Your task to perform on an android device: Add "usb-a" to the cart on walmart Image 0: 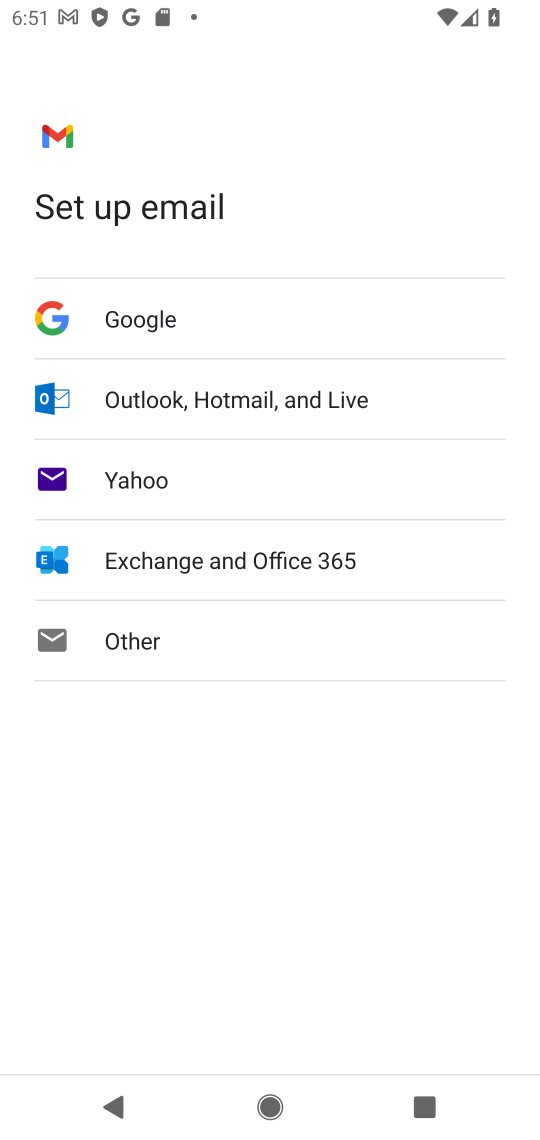
Step 0: press home button
Your task to perform on an android device: Add "usb-a" to the cart on walmart Image 1: 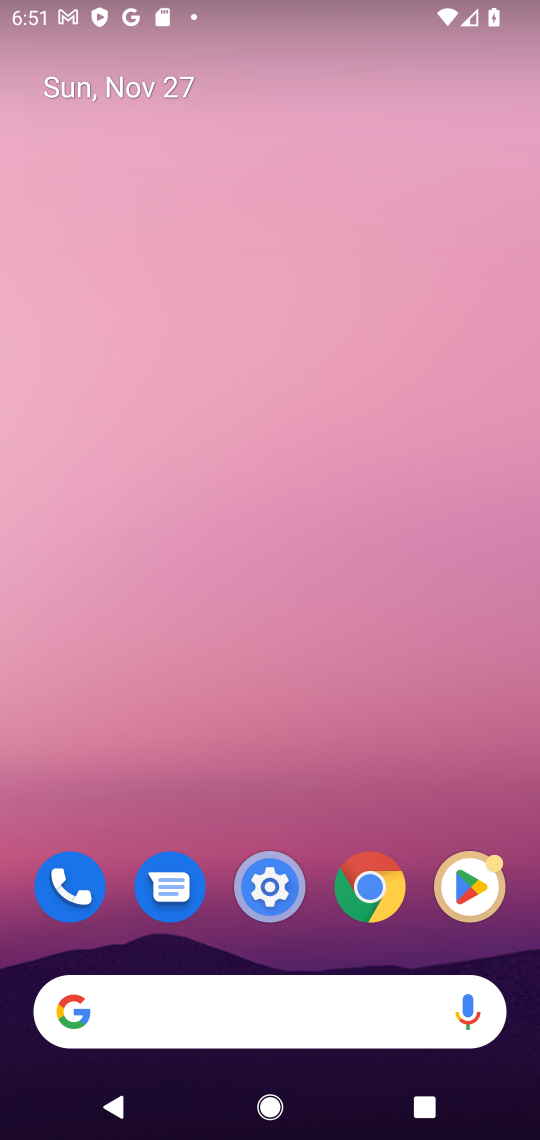
Step 1: click (335, 1021)
Your task to perform on an android device: Add "usb-a" to the cart on walmart Image 2: 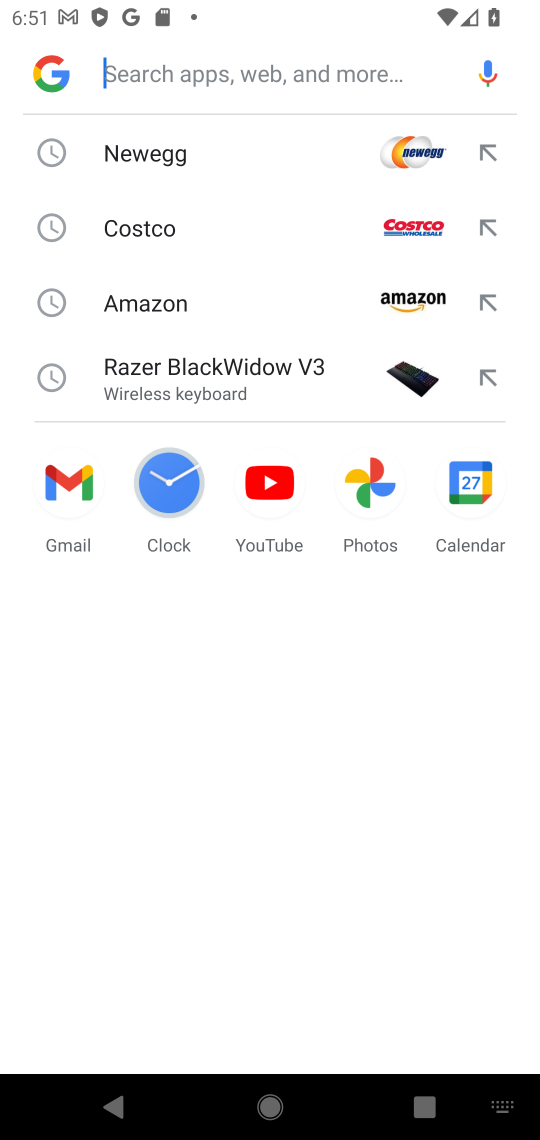
Step 2: type "walmart"
Your task to perform on an android device: Add "usb-a" to the cart on walmart Image 3: 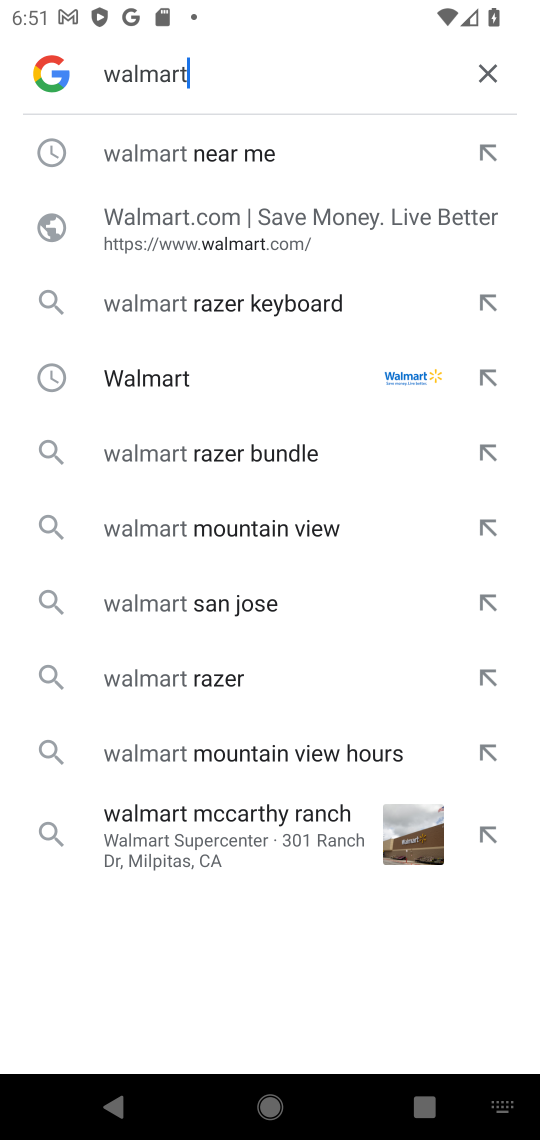
Step 3: click (212, 220)
Your task to perform on an android device: Add "usb-a" to the cart on walmart Image 4: 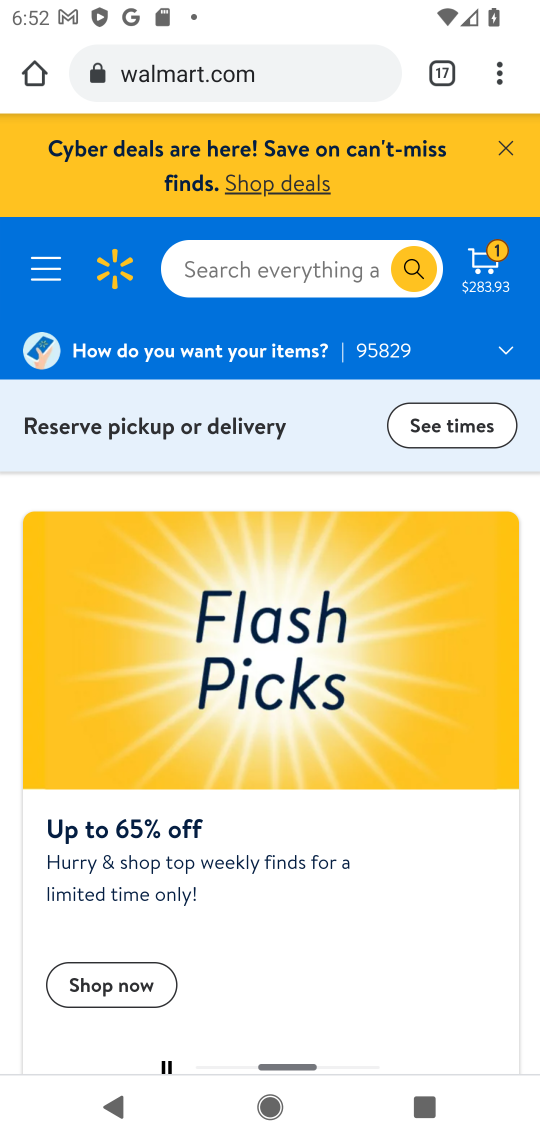
Step 4: click (267, 258)
Your task to perform on an android device: Add "usb-a" to the cart on walmart Image 5: 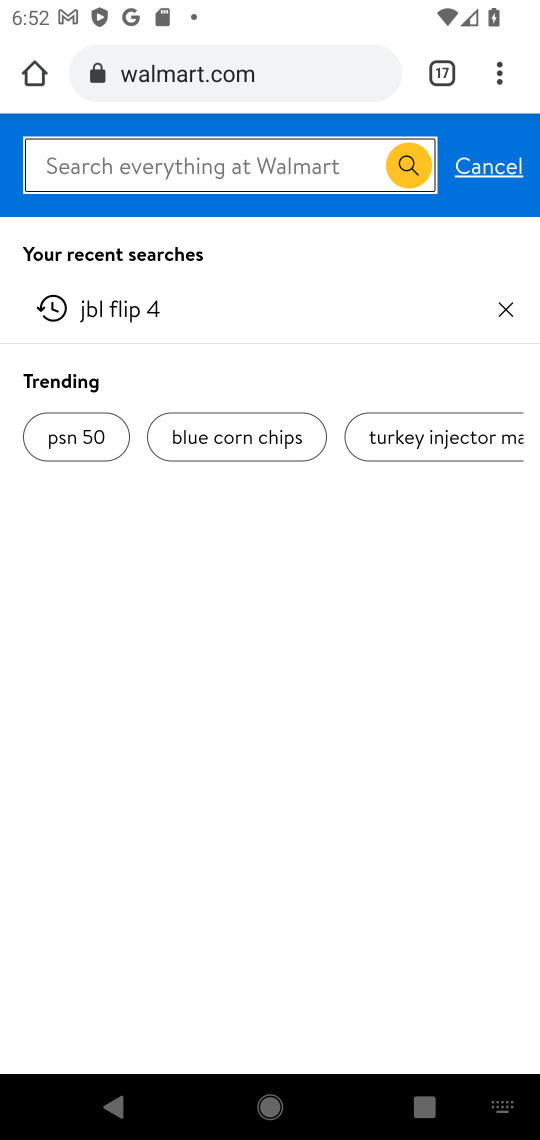
Step 5: type "usb-a"
Your task to perform on an android device: Add "usb-a" to the cart on walmart Image 6: 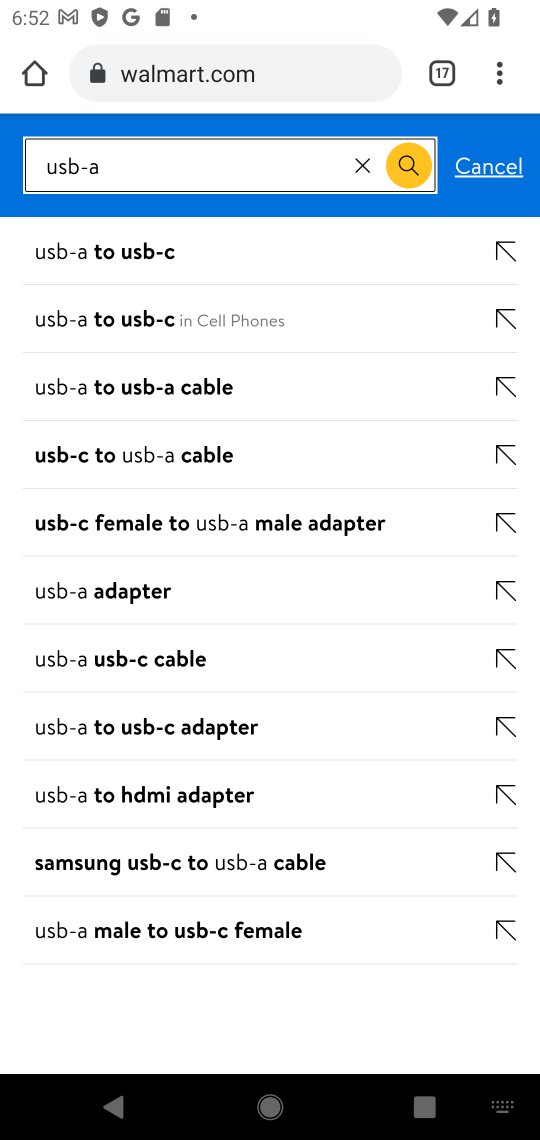
Step 6: click (163, 607)
Your task to perform on an android device: Add "usb-a" to the cart on walmart Image 7: 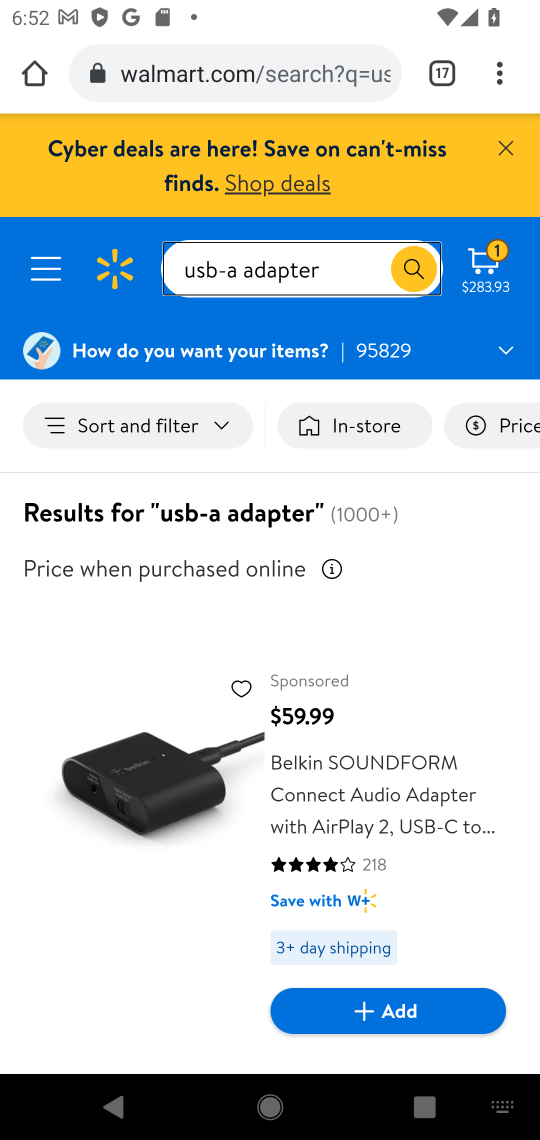
Step 7: click (349, 1014)
Your task to perform on an android device: Add "usb-a" to the cart on walmart Image 8: 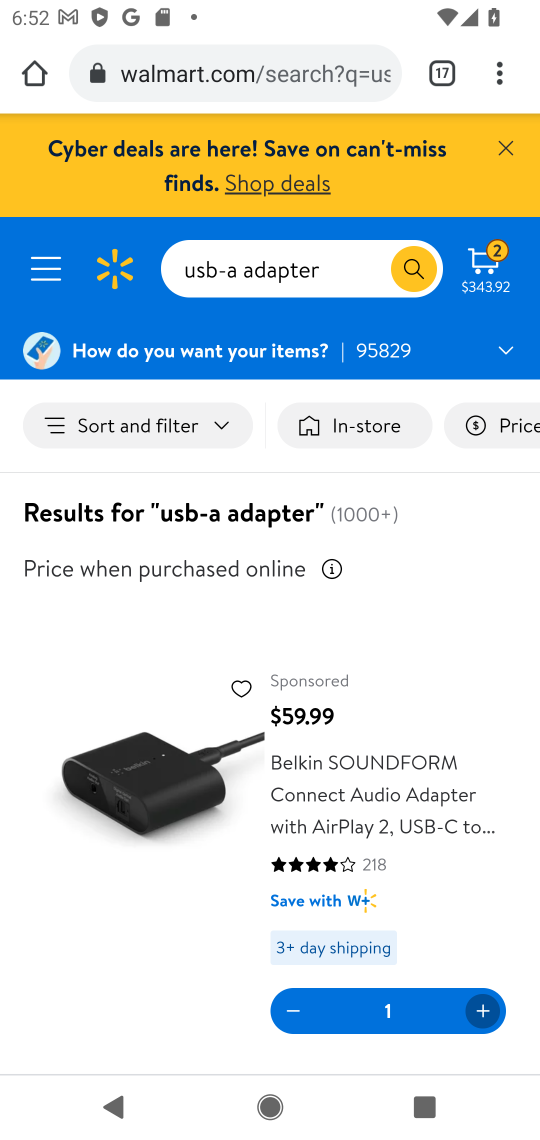
Step 8: task complete